Your task to perform on an android device: refresh tabs in the chrome app Image 0: 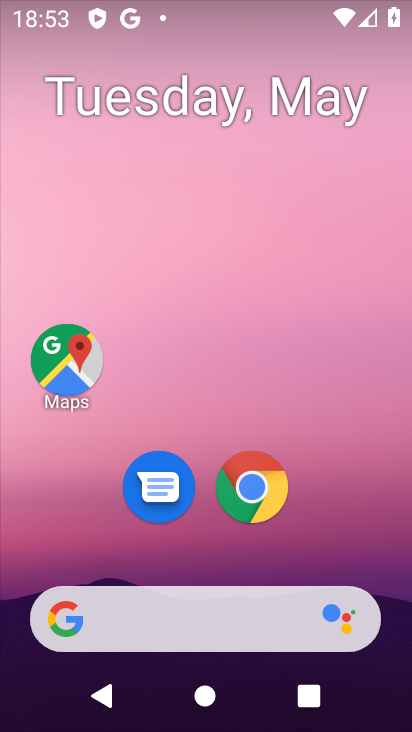
Step 0: click (250, 477)
Your task to perform on an android device: refresh tabs in the chrome app Image 1: 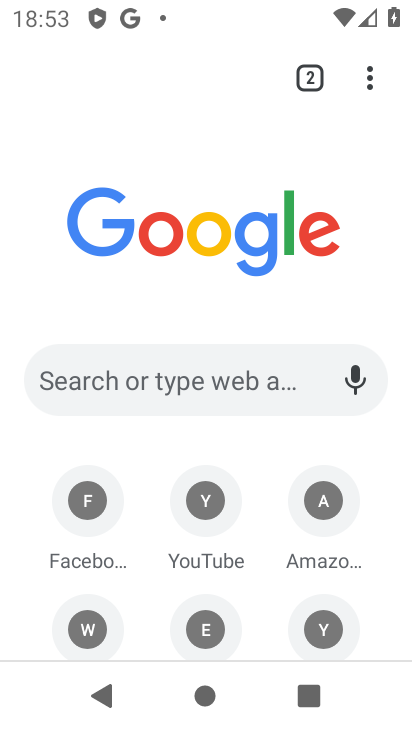
Step 1: click (375, 78)
Your task to perform on an android device: refresh tabs in the chrome app Image 2: 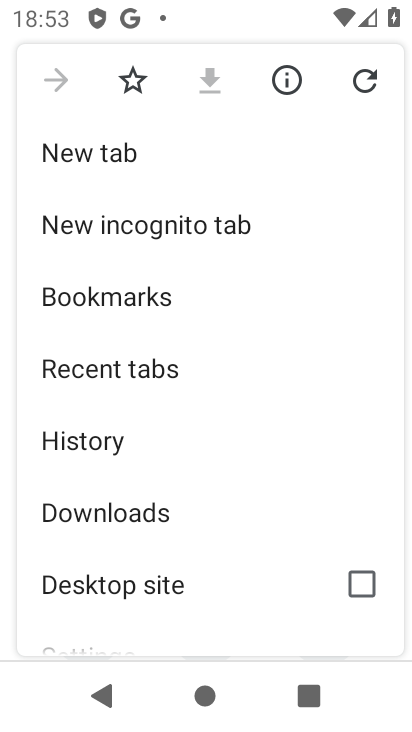
Step 2: click (367, 78)
Your task to perform on an android device: refresh tabs in the chrome app Image 3: 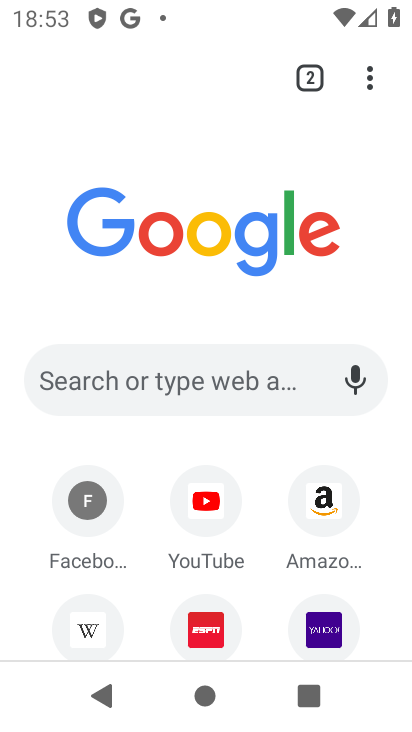
Step 3: task complete